Your task to perform on an android device: check the backup settings in the google photos Image 0: 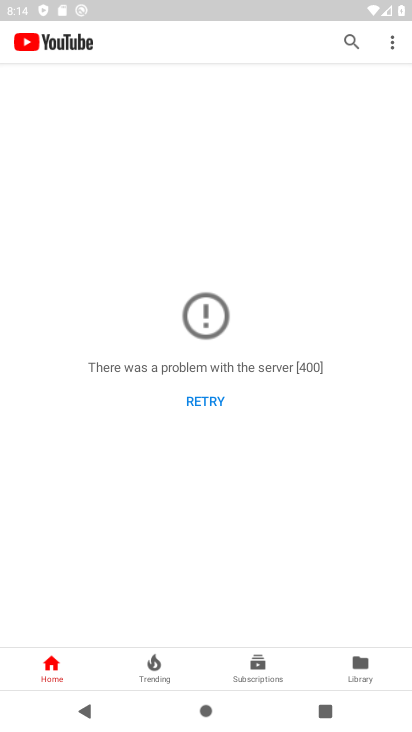
Step 0: press home button
Your task to perform on an android device: check the backup settings in the google photos Image 1: 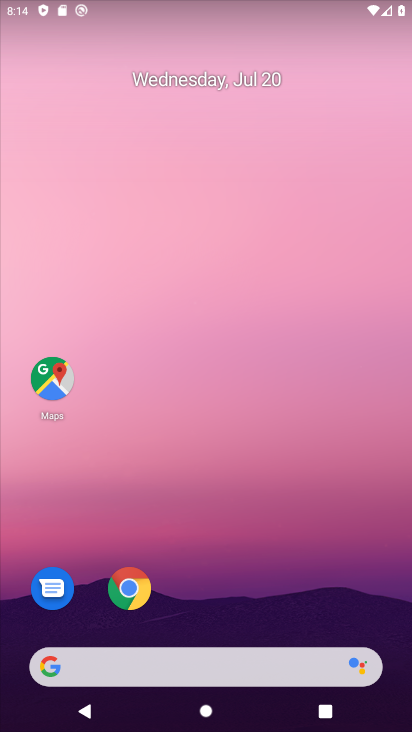
Step 1: drag from (167, 606) to (287, 0)
Your task to perform on an android device: check the backup settings in the google photos Image 2: 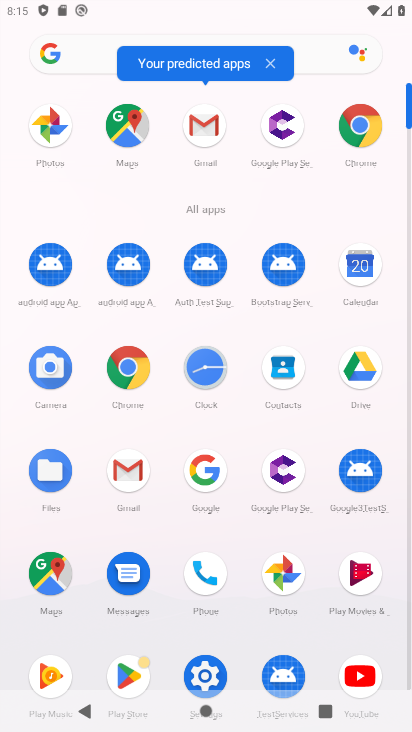
Step 2: click (56, 137)
Your task to perform on an android device: check the backup settings in the google photos Image 3: 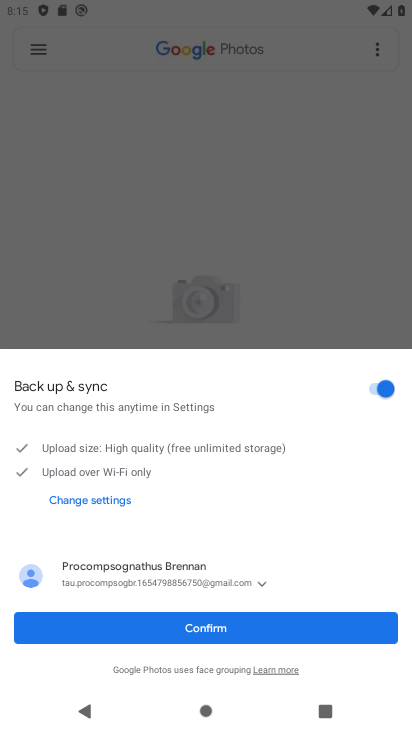
Step 3: click (142, 613)
Your task to perform on an android device: check the backup settings in the google photos Image 4: 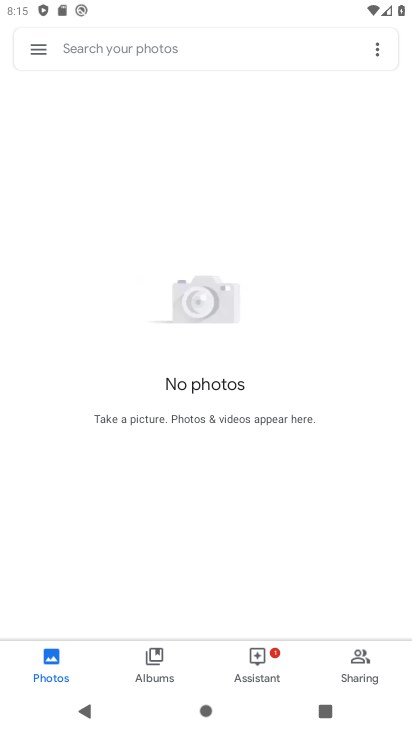
Step 4: click (37, 42)
Your task to perform on an android device: check the backup settings in the google photos Image 5: 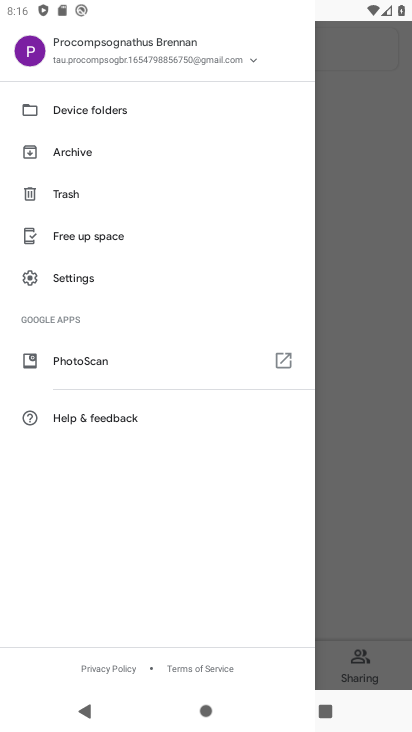
Step 5: click (111, 286)
Your task to perform on an android device: check the backup settings in the google photos Image 6: 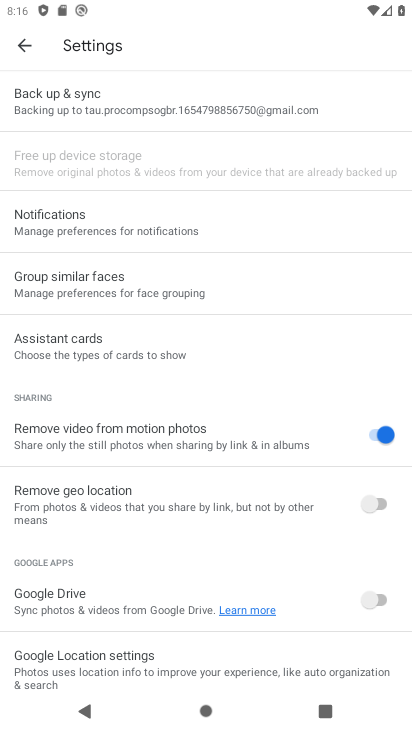
Step 6: click (135, 103)
Your task to perform on an android device: check the backup settings in the google photos Image 7: 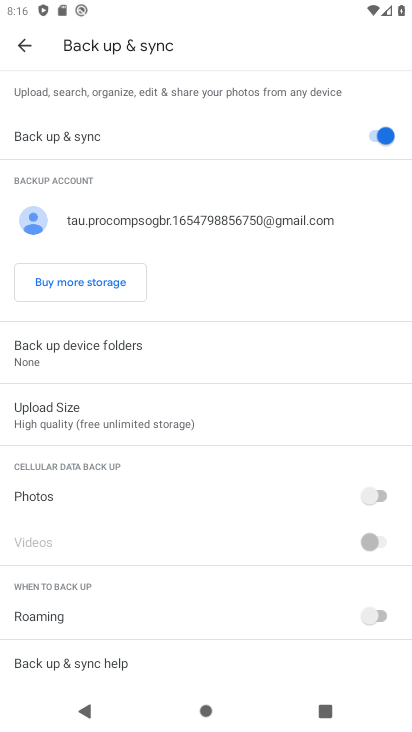
Step 7: click (118, 123)
Your task to perform on an android device: check the backup settings in the google photos Image 8: 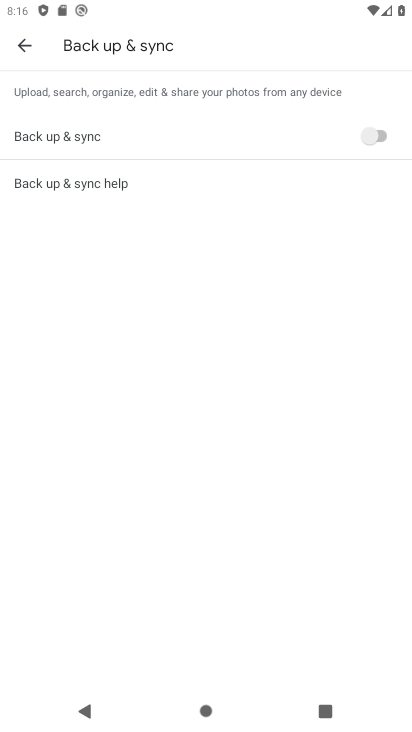
Step 8: click (182, 130)
Your task to perform on an android device: check the backup settings in the google photos Image 9: 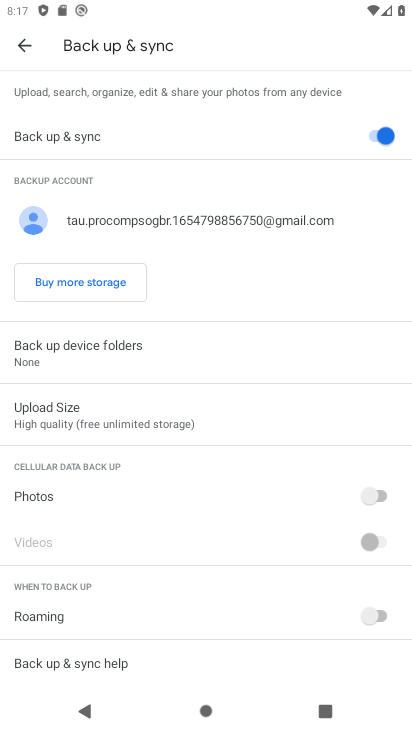
Step 9: task complete